Your task to perform on an android device: set the stopwatch Image 0: 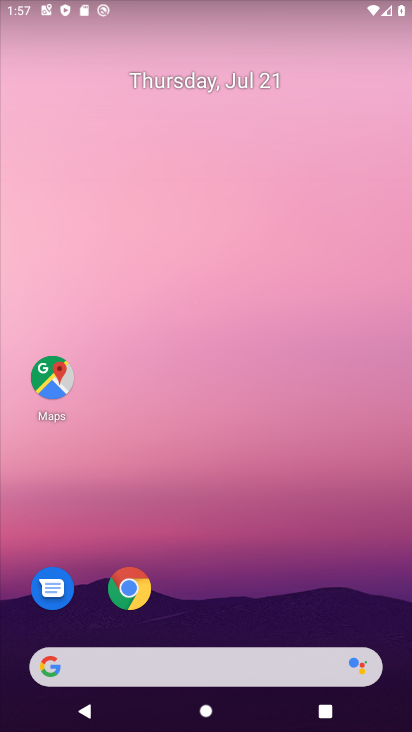
Step 0: drag from (192, 632) to (282, 0)
Your task to perform on an android device: set the stopwatch Image 1: 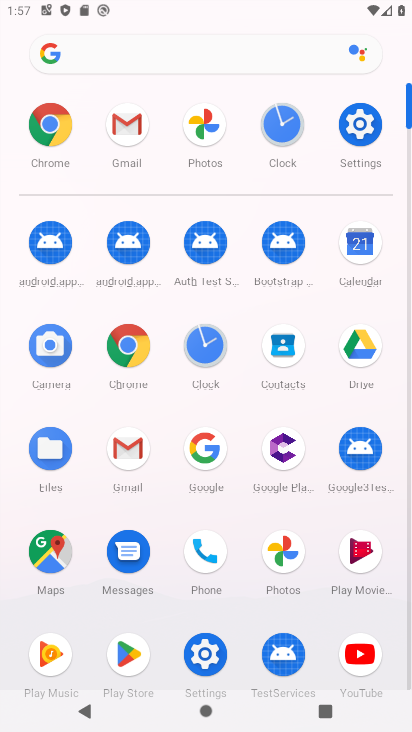
Step 1: click (209, 345)
Your task to perform on an android device: set the stopwatch Image 2: 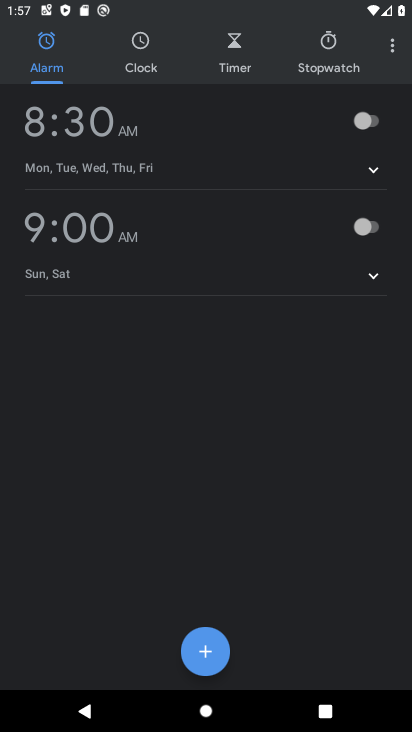
Step 2: click (312, 49)
Your task to perform on an android device: set the stopwatch Image 3: 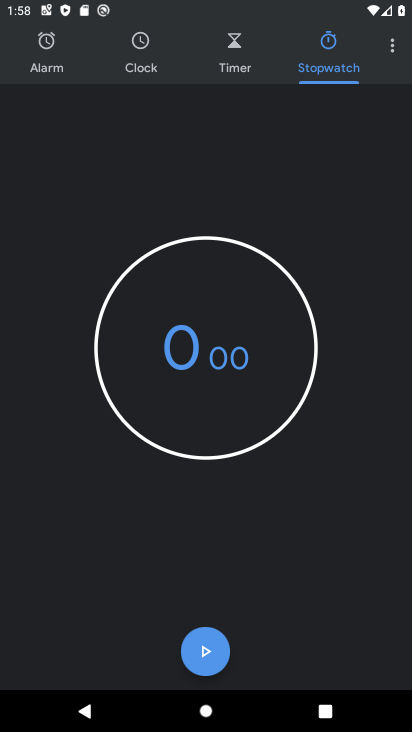
Step 3: task complete